Your task to perform on an android device: turn on location history Image 0: 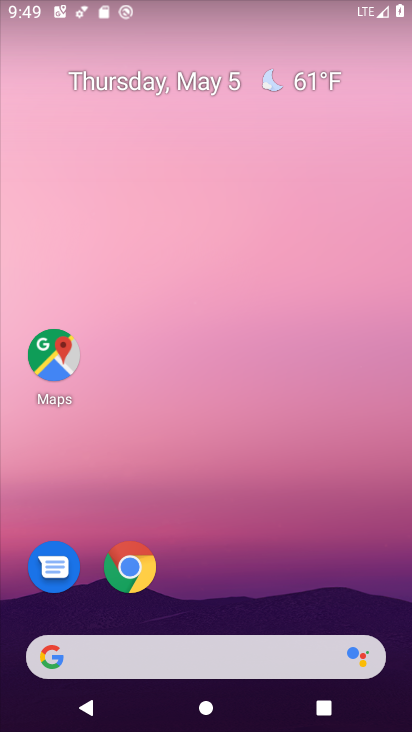
Step 0: drag from (253, 567) to (209, 106)
Your task to perform on an android device: turn on location history Image 1: 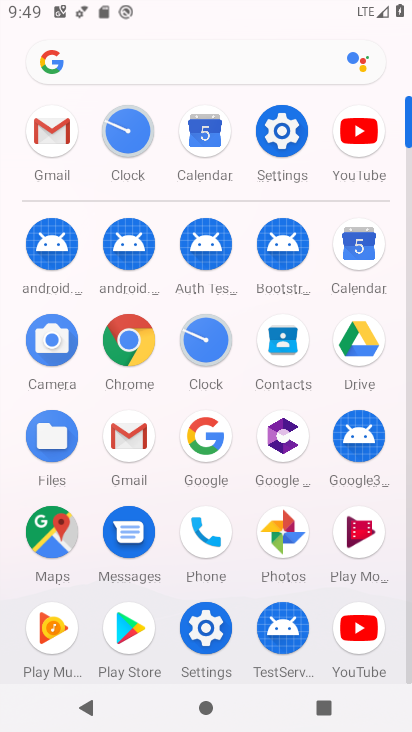
Step 1: click (296, 134)
Your task to perform on an android device: turn on location history Image 2: 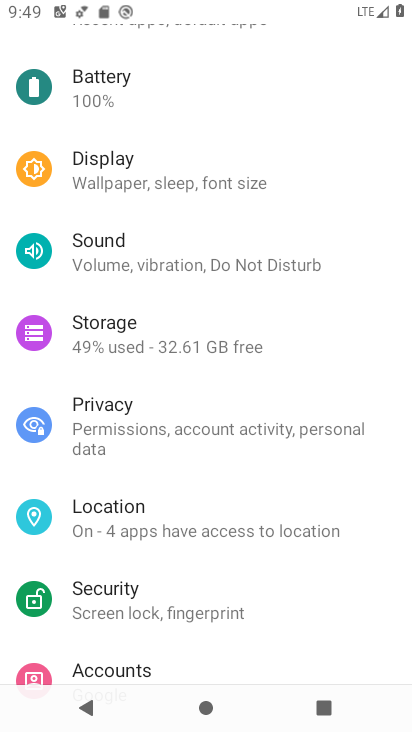
Step 2: click (126, 527)
Your task to perform on an android device: turn on location history Image 3: 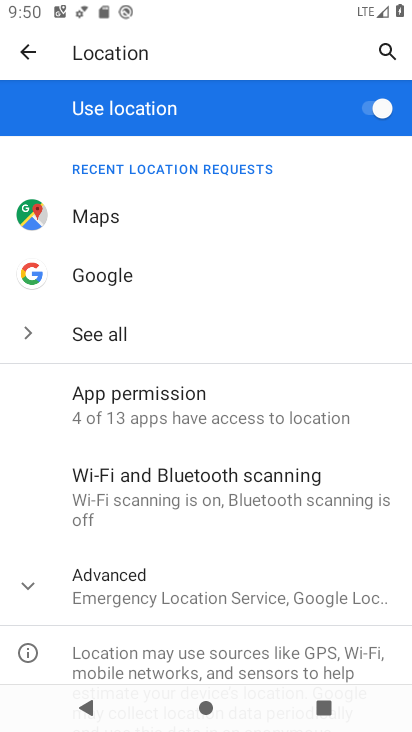
Step 3: click (239, 587)
Your task to perform on an android device: turn on location history Image 4: 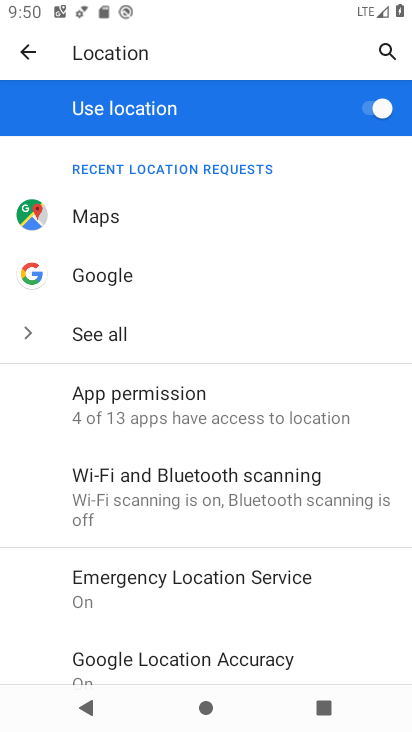
Step 4: drag from (236, 629) to (240, 320)
Your task to perform on an android device: turn on location history Image 5: 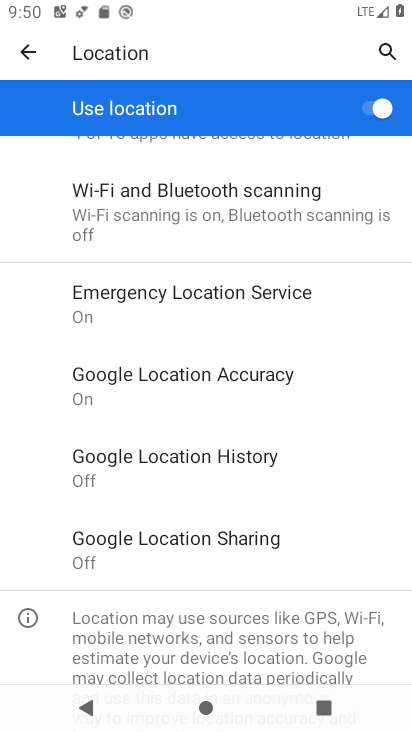
Step 5: click (220, 468)
Your task to perform on an android device: turn on location history Image 6: 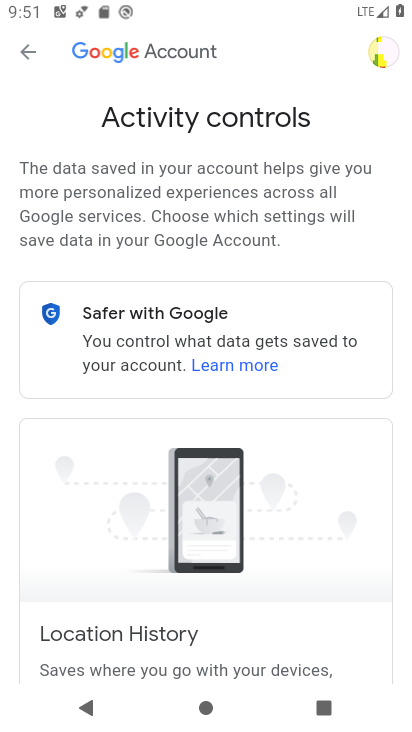
Step 6: drag from (303, 556) to (284, 211)
Your task to perform on an android device: turn on location history Image 7: 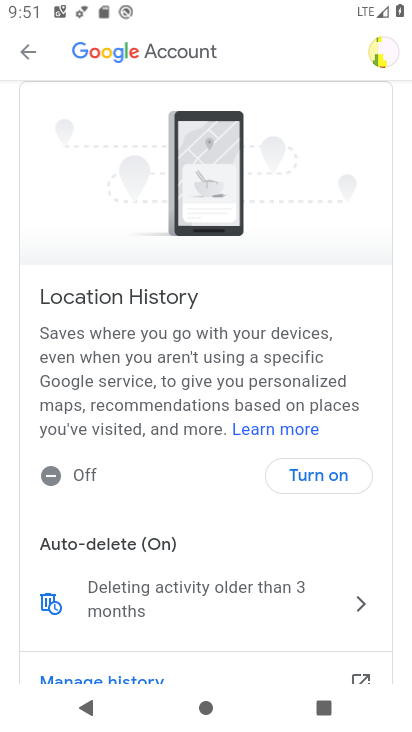
Step 7: click (310, 475)
Your task to perform on an android device: turn on location history Image 8: 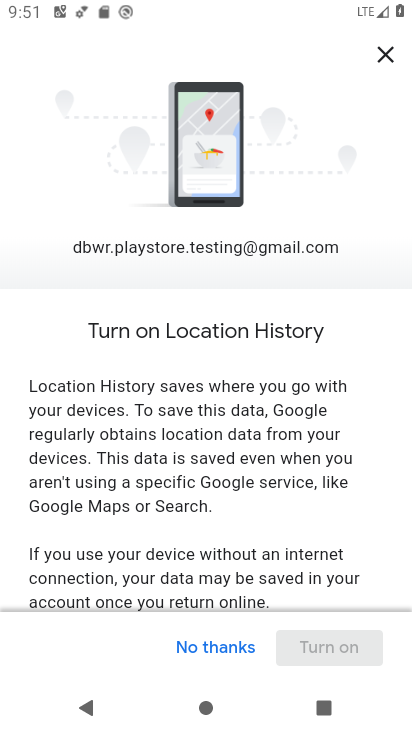
Step 8: drag from (287, 561) to (269, 194)
Your task to perform on an android device: turn on location history Image 9: 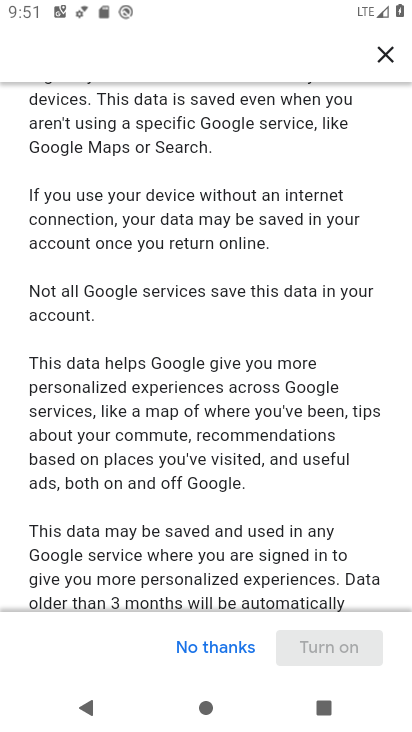
Step 9: drag from (299, 585) to (277, 262)
Your task to perform on an android device: turn on location history Image 10: 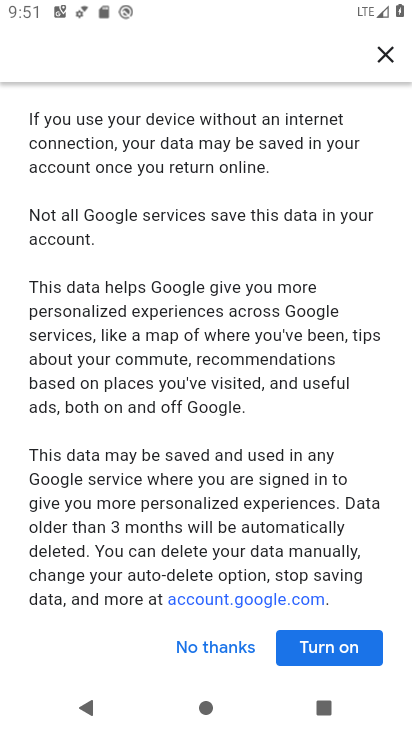
Step 10: click (318, 647)
Your task to perform on an android device: turn on location history Image 11: 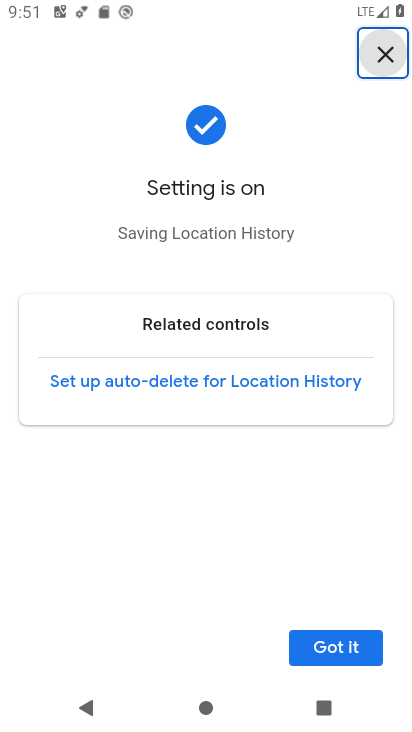
Step 11: click (318, 647)
Your task to perform on an android device: turn on location history Image 12: 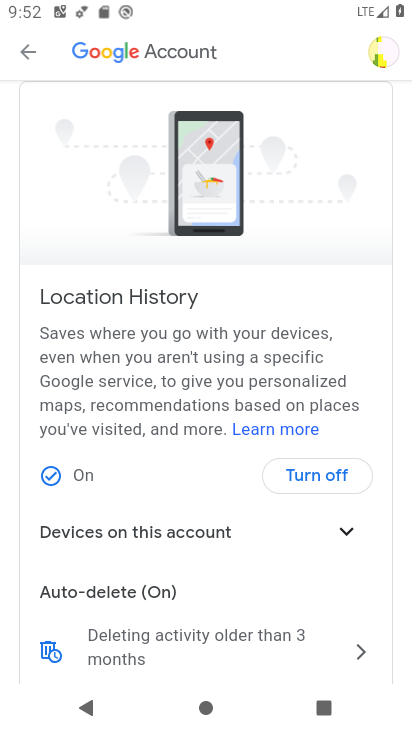
Step 12: task complete